Your task to perform on an android device: toggle javascript in the chrome app Image 0: 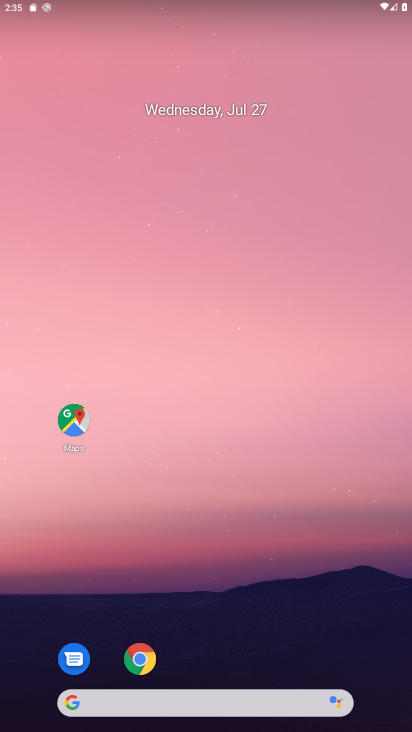
Step 0: drag from (199, 650) to (284, 11)
Your task to perform on an android device: toggle javascript in the chrome app Image 1: 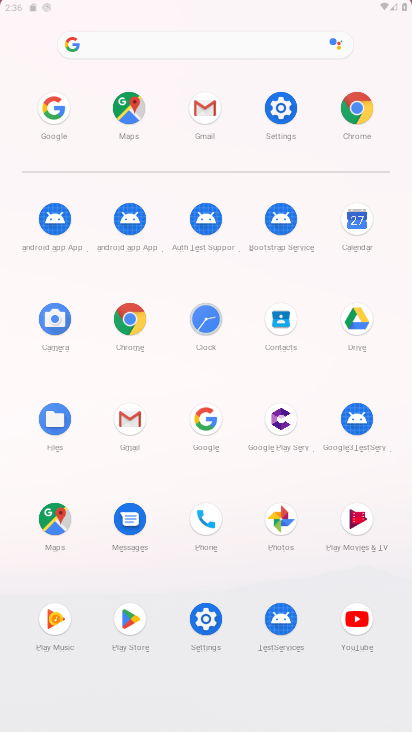
Step 1: click (356, 125)
Your task to perform on an android device: toggle javascript in the chrome app Image 2: 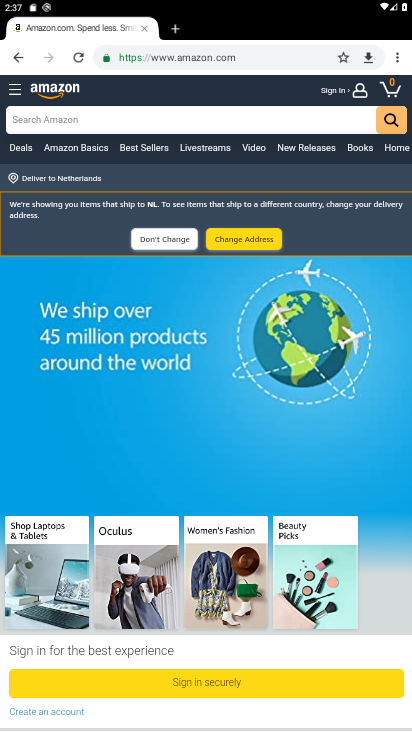
Step 2: click (405, 62)
Your task to perform on an android device: toggle javascript in the chrome app Image 3: 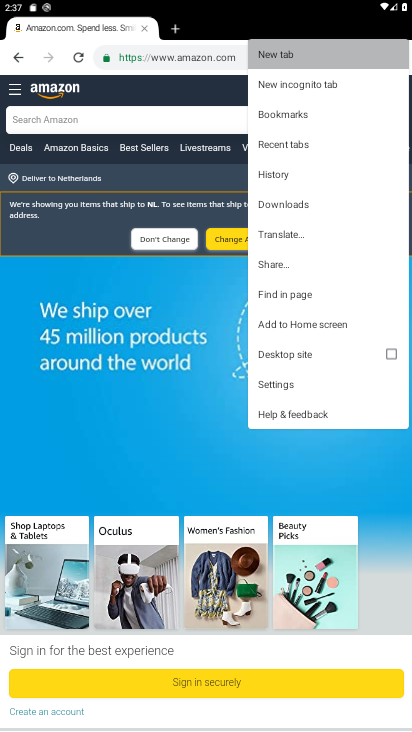
Step 3: drag from (403, 59) to (303, 269)
Your task to perform on an android device: toggle javascript in the chrome app Image 4: 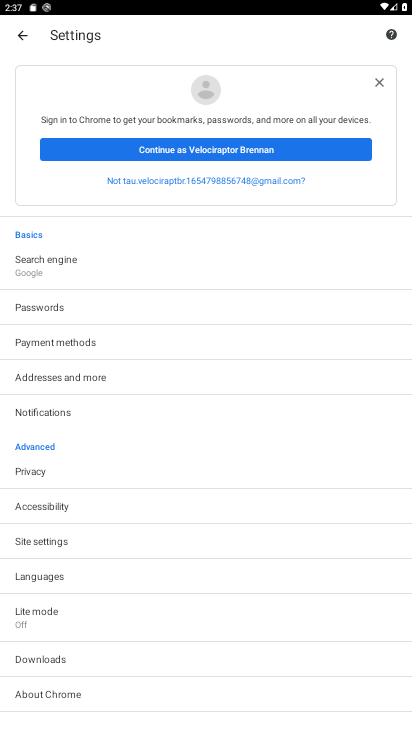
Step 4: click (99, 542)
Your task to perform on an android device: toggle javascript in the chrome app Image 5: 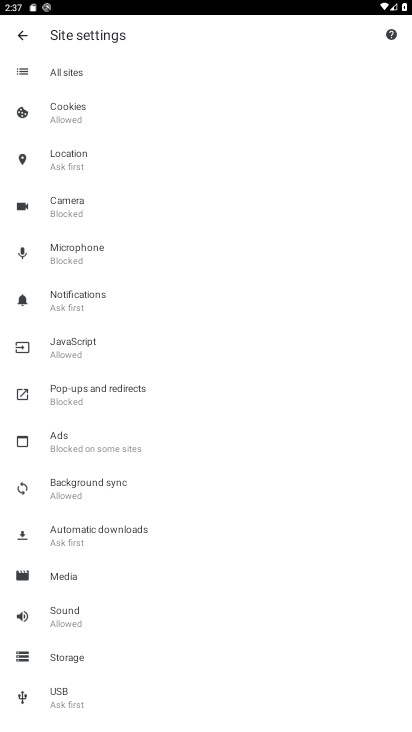
Step 5: click (49, 344)
Your task to perform on an android device: toggle javascript in the chrome app Image 6: 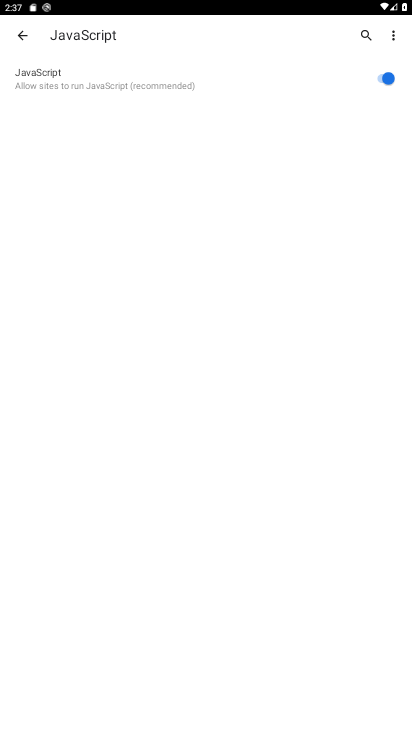
Step 6: click (386, 72)
Your task to perform on an android device: toggle javascript in the chrome app Image 7: 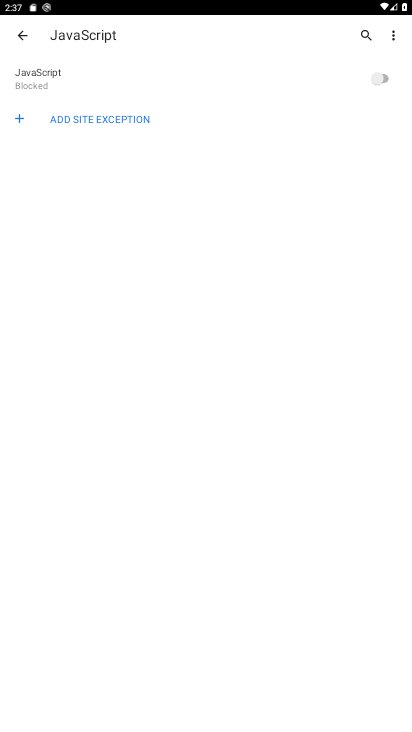
Step 7: task complete